Your task to perform on an android device: check the backup settings in the google photos Image 0: 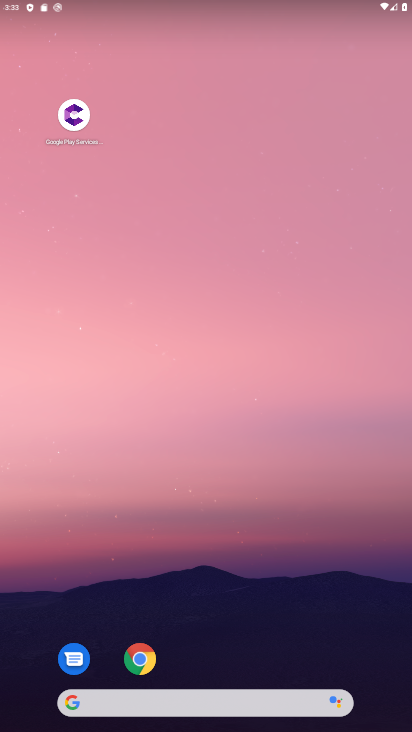
Step 0: drag from (241, 624) to (148, 159)
Your task to perform on an android device: check the backup settings in the google photos Image 1: 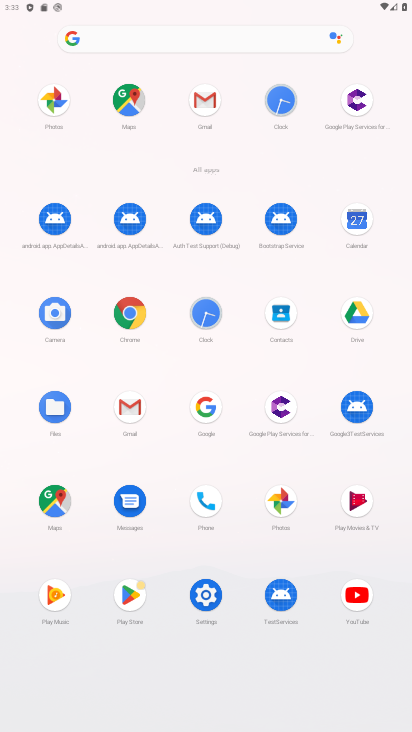
Step 1: click (279, 505)
Your task to perform on an android device: check the backup settings in the google photos Image 2: 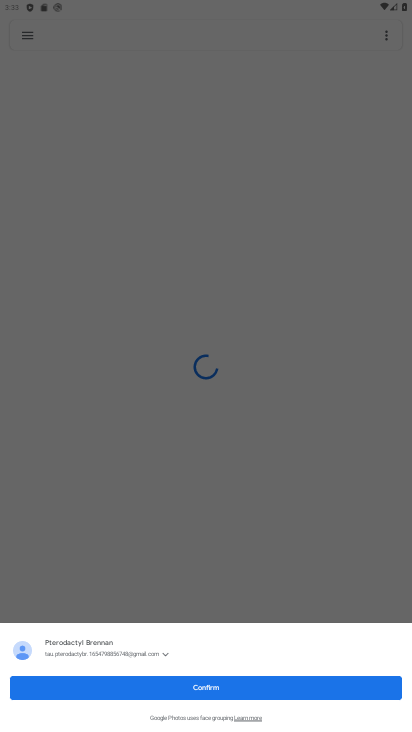
Step 2: click (26, 41)
Your task to perform on an android device: check the backup settings in the google photos Image 3: 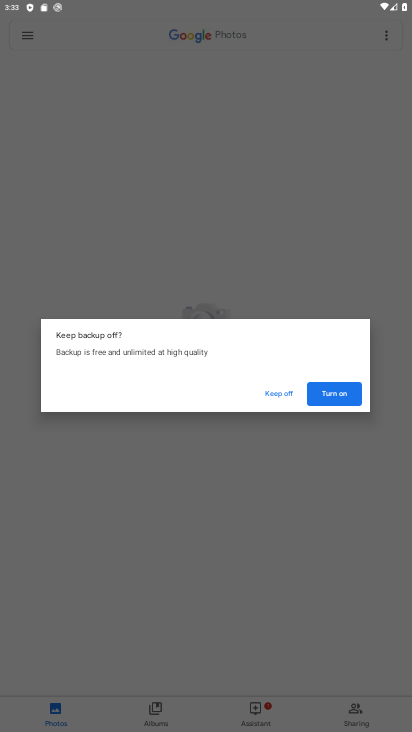
Step 3: click (318, 392)
Your task to perform on an android device: check the backup settings in the google photos Image 4: 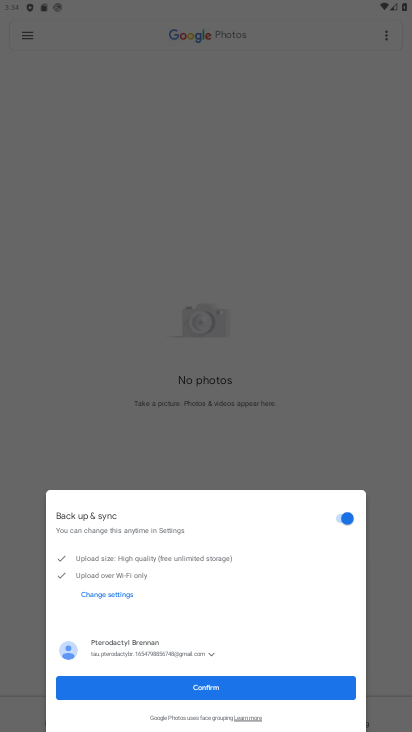
Step 4: click (196, 683)
Your task to perform on an android device: check the backup settings in the google photos Image 5: 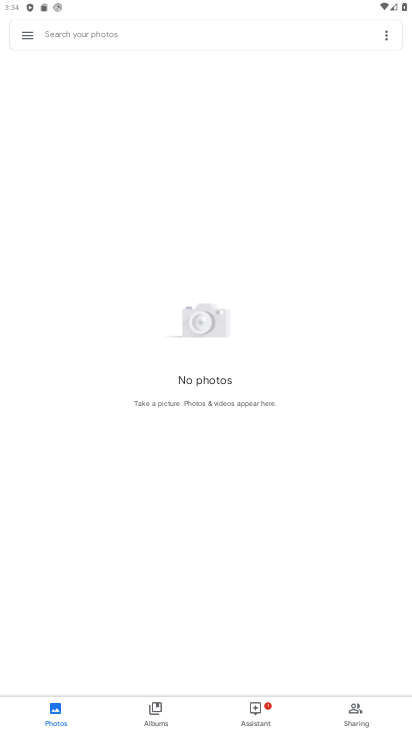
Step 5: click (27, 38)
Your task to perform on an android device: check the backup settings in the google photos Image 6: 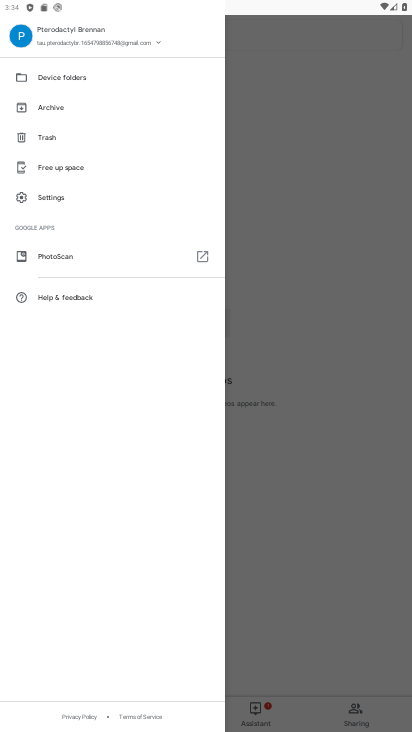
Step 6: click (38, 198)
Your task to perform on an android device: check the backup settings in the google photos Image 7: 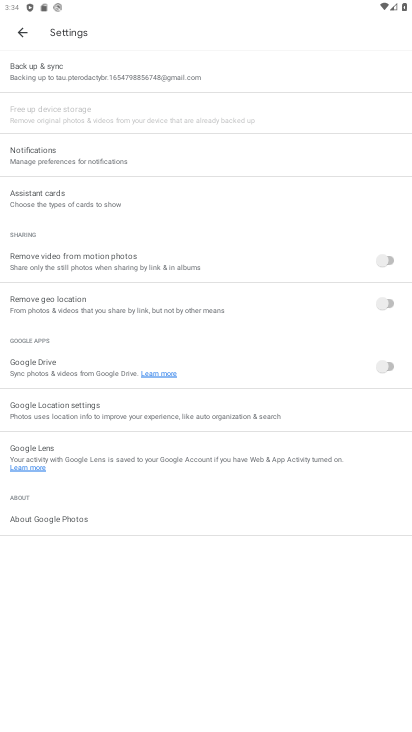
Step 7: click (98, 68)
Your task to perform on an android device: check the backup settings in the google photos Image 8: 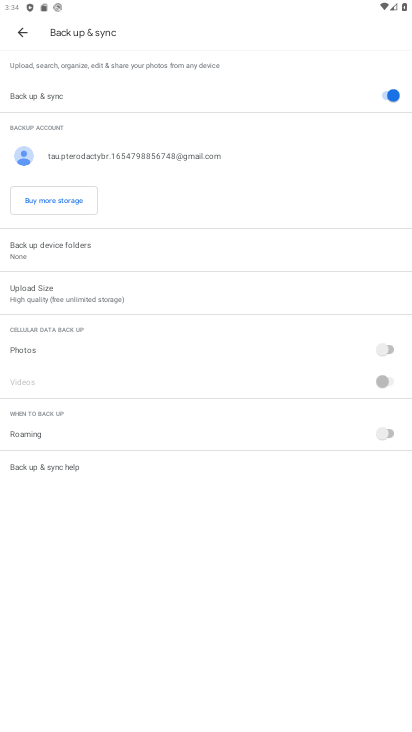
Step 8: task complete